Your task to perform on an android device: change the clock display to show seconds Image 0: 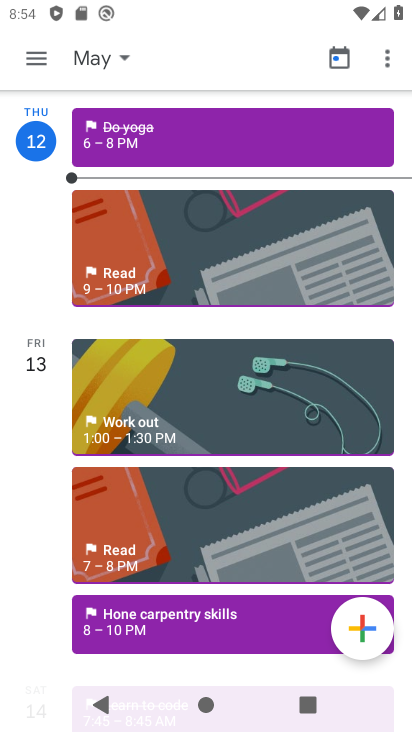
Step 0: press home button
Your task to perform on an android device: change the clock display to show seconds Image 1: 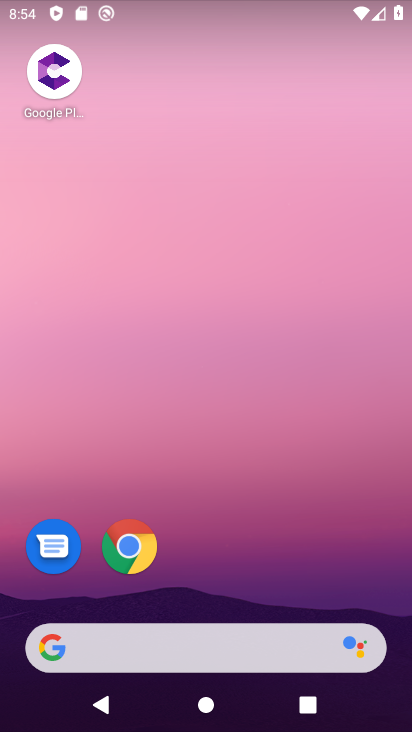
Step 1: drag from (211, 579) to (256, 92)
Your task to perform on an android device: change the clock display to show seconds Image 2: 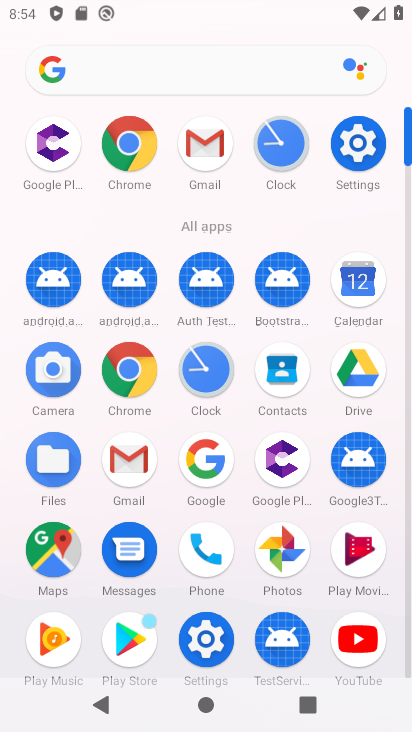
Step 2: click (223, 375)
Your task to perform on an android device: change the clock display to show seconds Image 3: 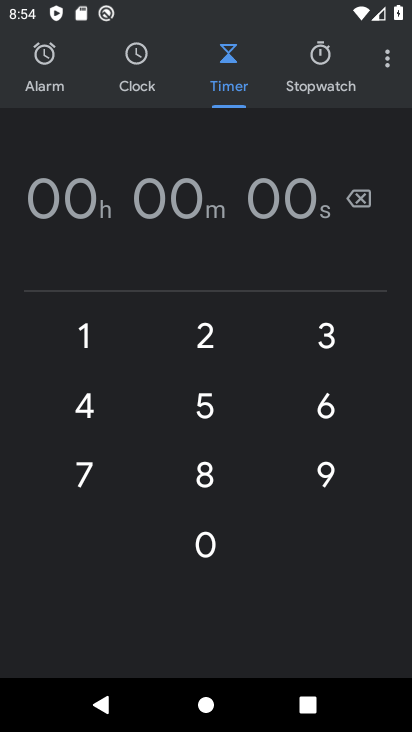
Step 3: click (391, 55)
Your task to perform on an android device: change the clock display to show seconds Image 4: 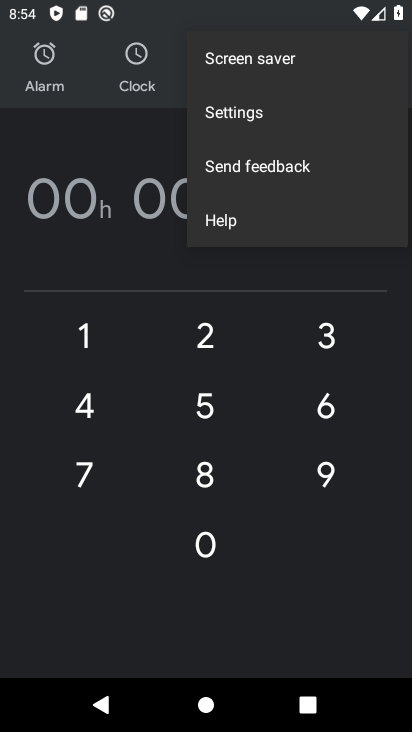
Step 4: click (254, 111)
Your task to perform on an android device: change the clock display to show seconds Image 5: 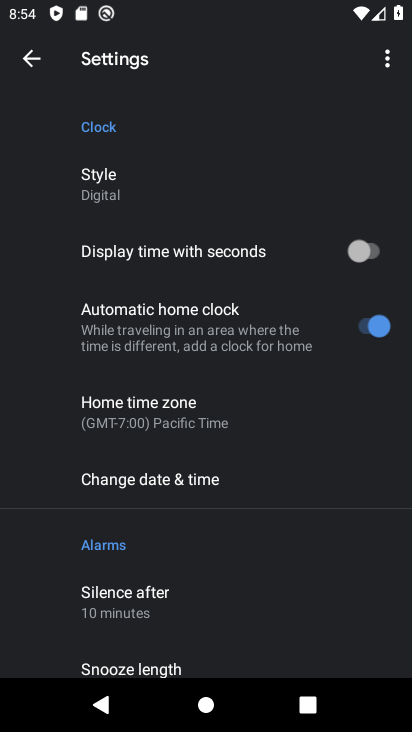
Step 5: click (368, 252)
Your task to perform on an android device: change the clock display to show seconds Image 6: 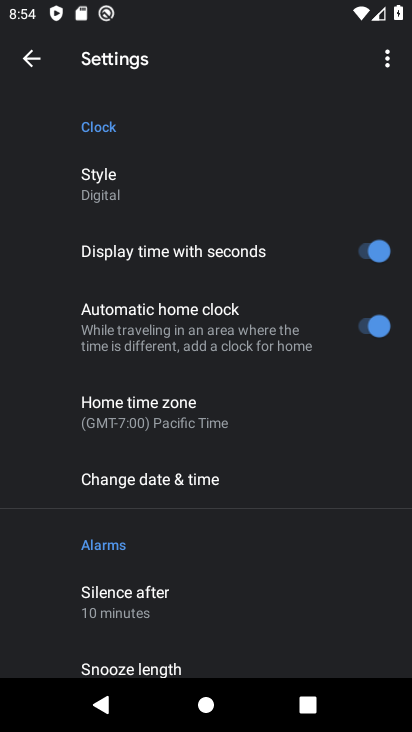
Step 6: task complete